Your task to perform on an android device: open device folders in google photos Image 0: 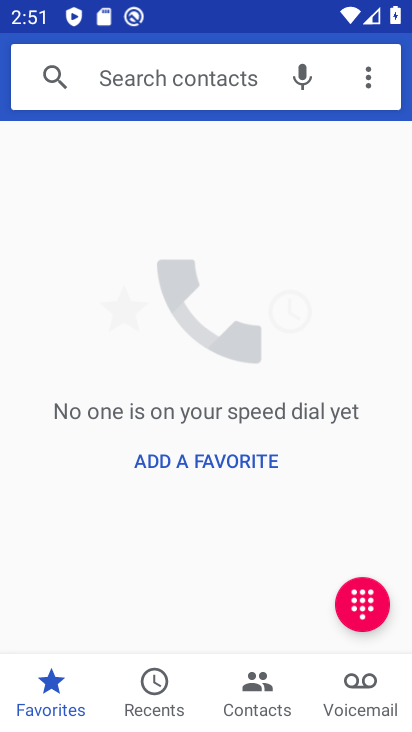
Step 0: press home button
Your task to perform on an android device: open device folders in google photos Image 1: 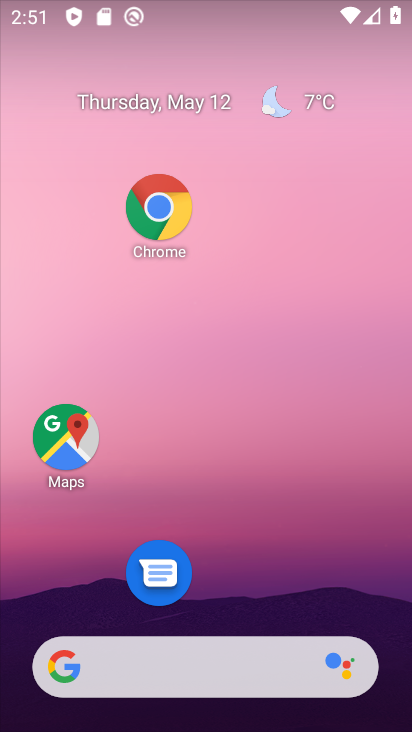
Step 1: drag from (263, 536) to (304, 16)
Your task to perform on an android device: open device folders in google photos Image 2: 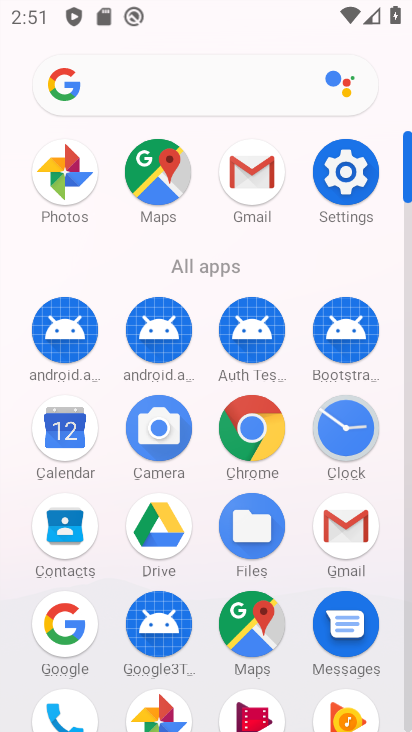
Step 2: drag from (269, 597) to (299, 187)
Your task to perform on an android device: open device folders in google photos Image 3: 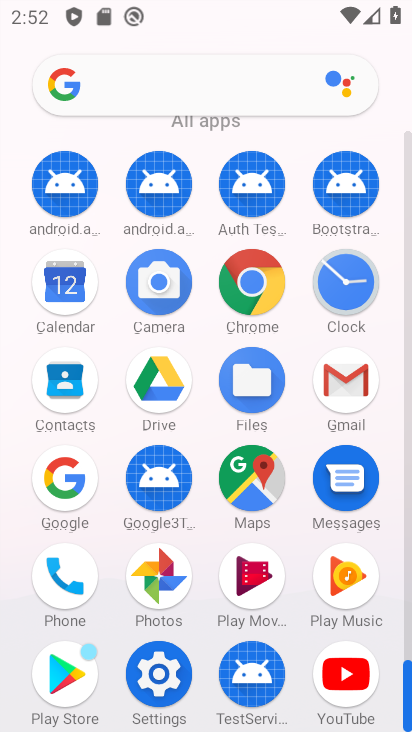
Step 3: click (171, 581)
Your task to perform on an android device: open device folders in google photos Image 4: 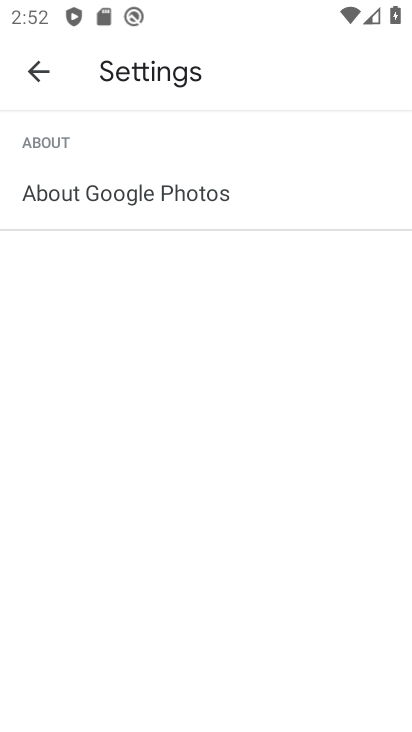
Step 4: click (58, 62)
Your task to perform on an android device: open device folders in google photos Image 5: 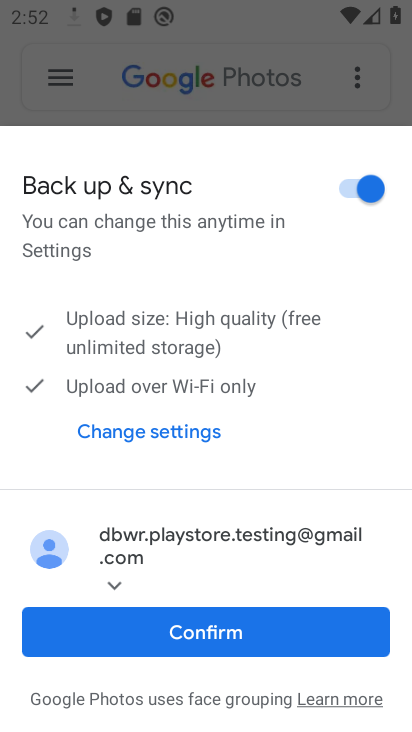
Step 5: click (211, 624)
Your task to perform on an android device: open device folders in google photos Image 6: 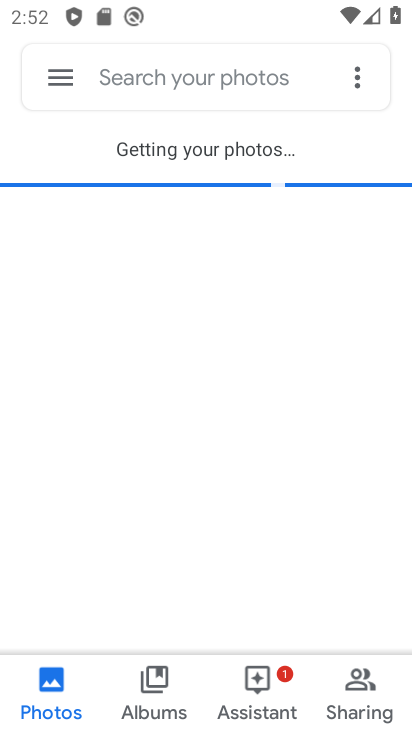
Step 6: click (67, 72)
Your task to perform on an android device: open device folders in google photos Image 7: 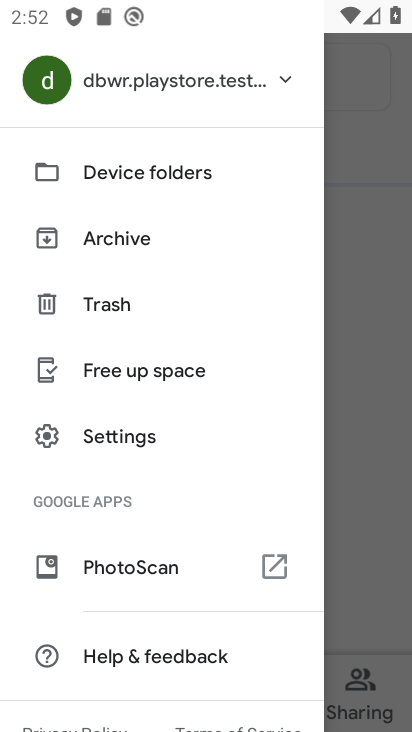
Step 7: click (117, 173)
Your task to perform on an android device: open device folders in google photos Image 8: 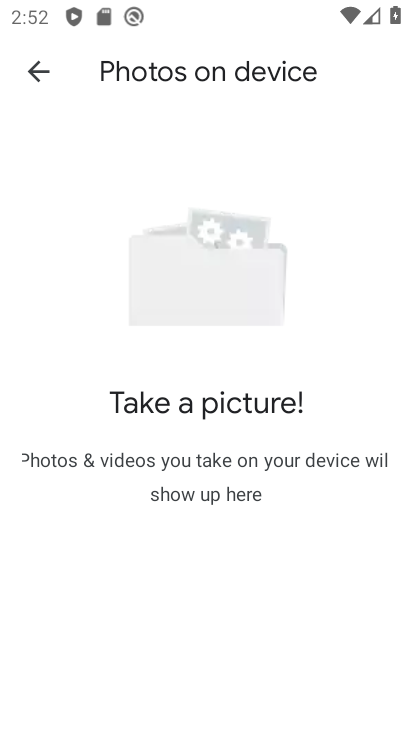
Step 8: task complete